Your task to perform on an android device: Go to display settings Image 0: 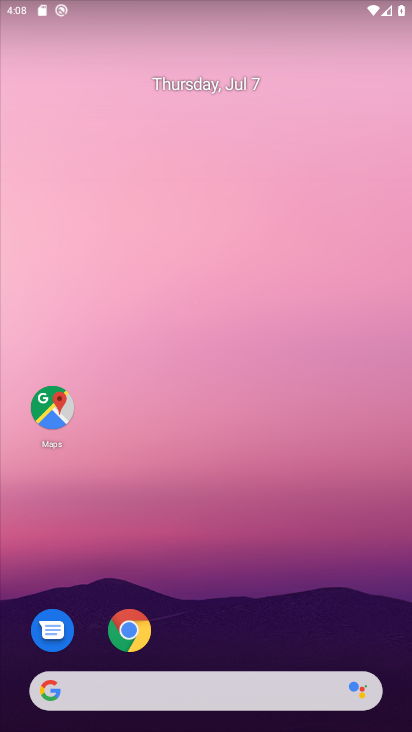
Step 0: drag from (197, 656) to (320, 17)
Your task to perform on an android device: Go to display settings Image 1: 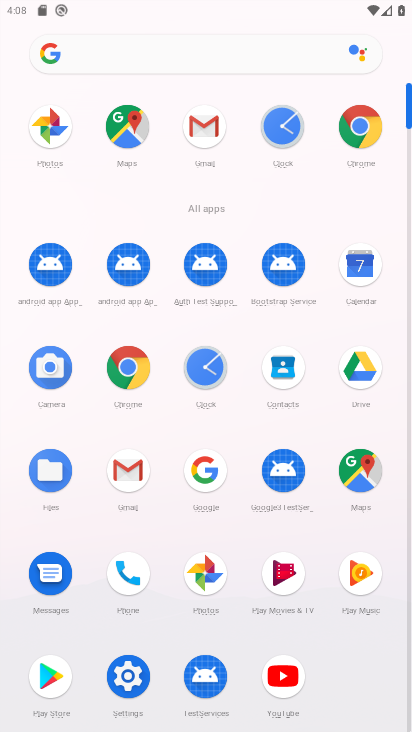
Step 1: click (128, 670)
Your task to perform on an android device: Go to display settings Image 2: 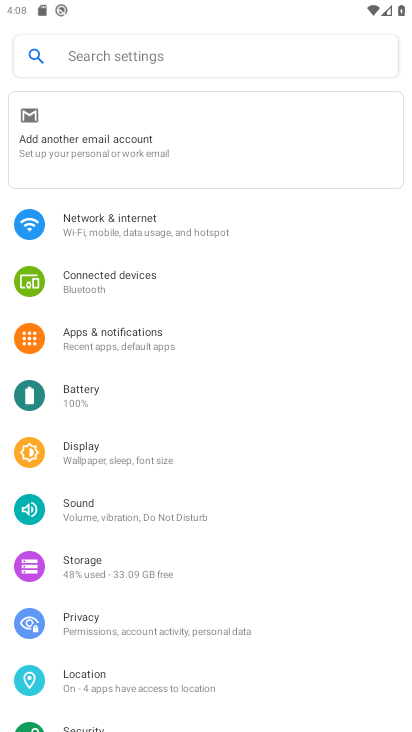
Step 2: click (100, 449)
Your task to perform on an android device: Go to display settings Image 3: 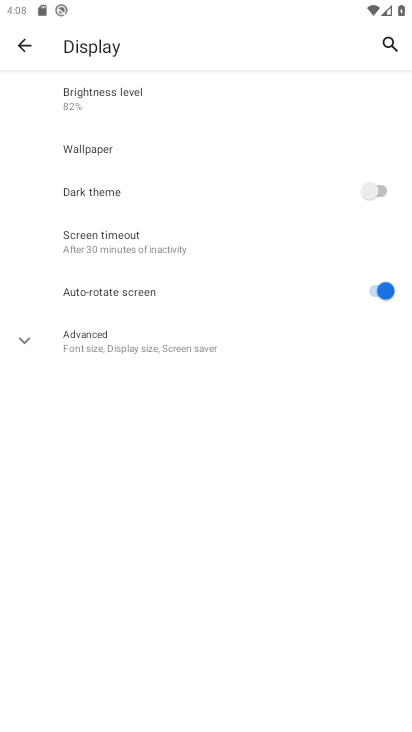
Step 3: task complete